Your task to perform on an android device: Open my contact list Image 0: 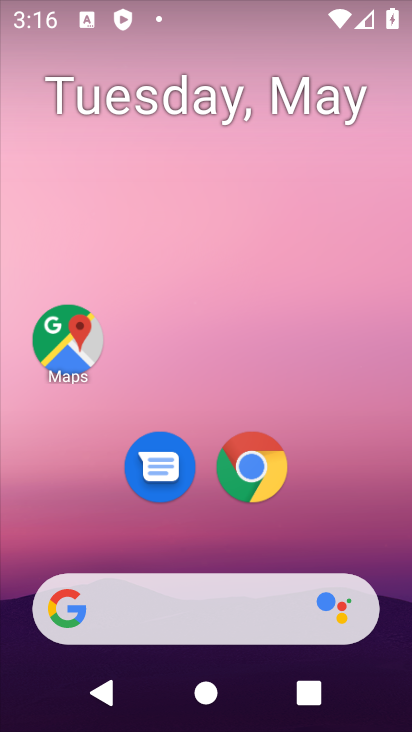
Step 0: drag from (372, 502) to (245, 48)
Your task to perform on an android device: Open my contact list Image 1: 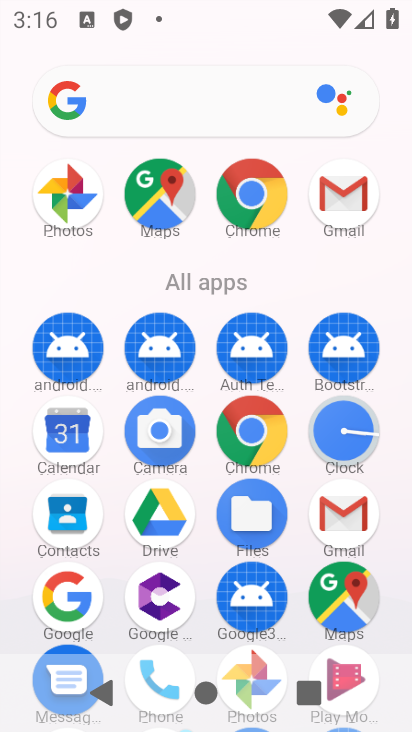
Step 1: click (83, 529)
Your task to perform on an android device: Open my contact list Image 2: 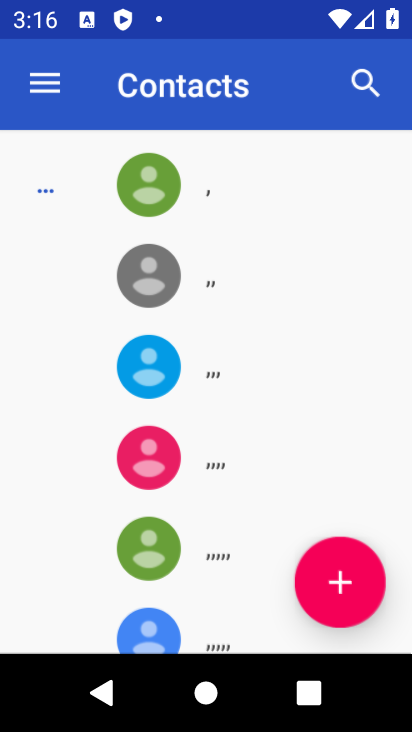
Step 2: task complete